Your task to perform on an android device: Search for seafood restaurants on Google Maps Image 0: 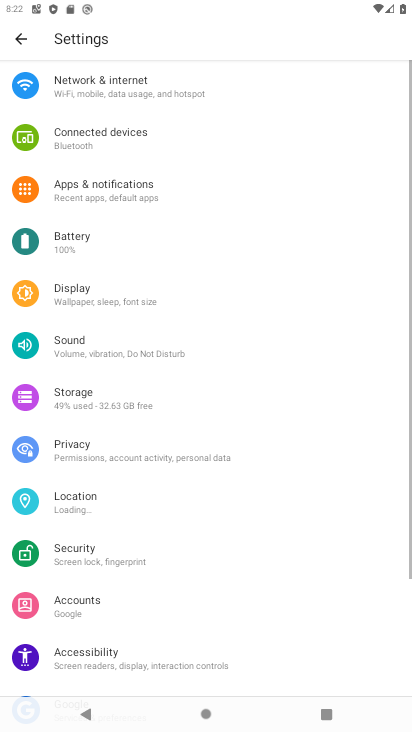
Step 0: press home button
Your task to perform on an android device: Search for seafood restaurants on Google Maps Image 1: 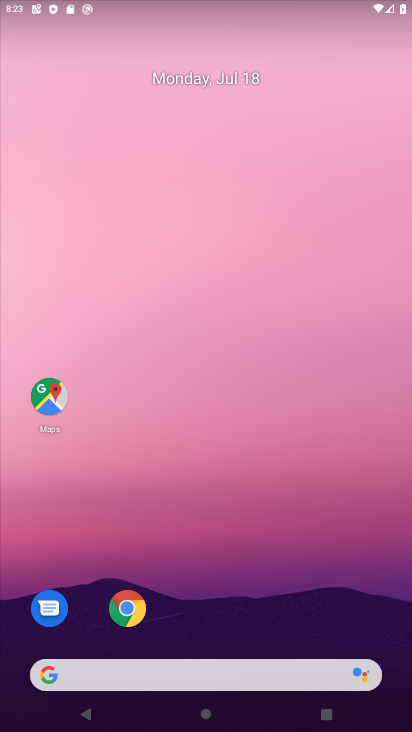
Step 1: drag from (235, 723) to (236, 223)
Your task to perform on an android device: Search for seafood restaurants on Google Maps Image 2: 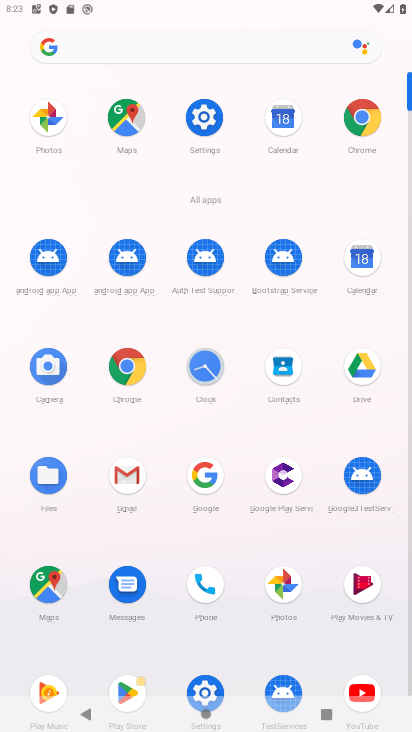
Step 2: click (45, 575)
Your task to perform on an android device: Search for seafood restaurants on Google Maps Image 3: 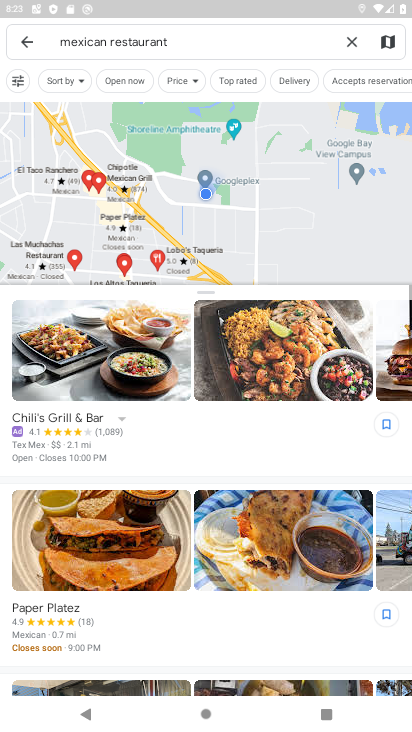
Step 3: click (349, 46)
Your task to perform on an android device: Search for seafood restaurants on Google Maps Image 4: 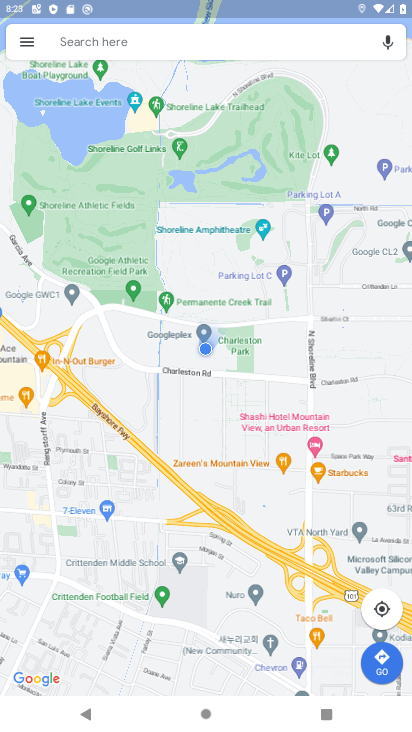
Step 4: click (124, 43)
Your task to perform on an android device: Search for seafood restaurants on Google Maps Image 5: 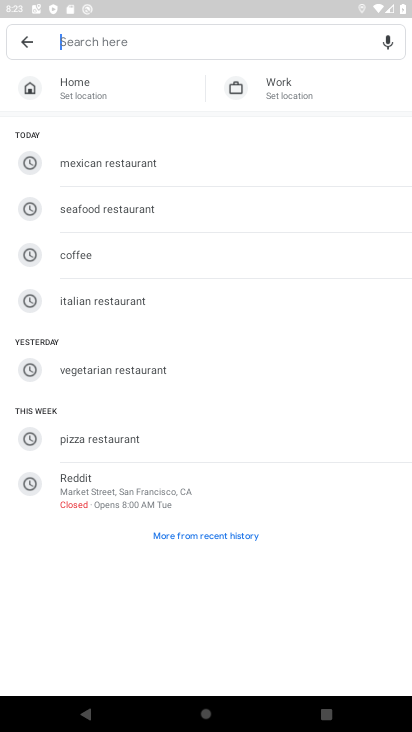
Step 5: type "seafood restaurants"
Your task to perform on an android device: Search for seafood restaurants on Google Maps Image 6: 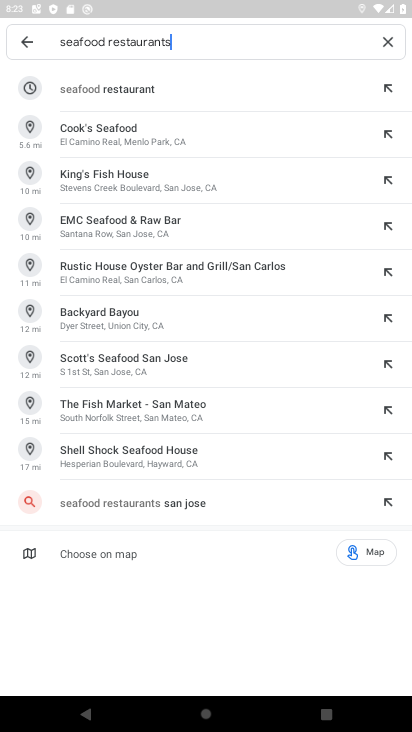
Step 6: click (129, 88)
Your task to perform on an android device: Search for seafood restaurants on Google Maps Image 7: 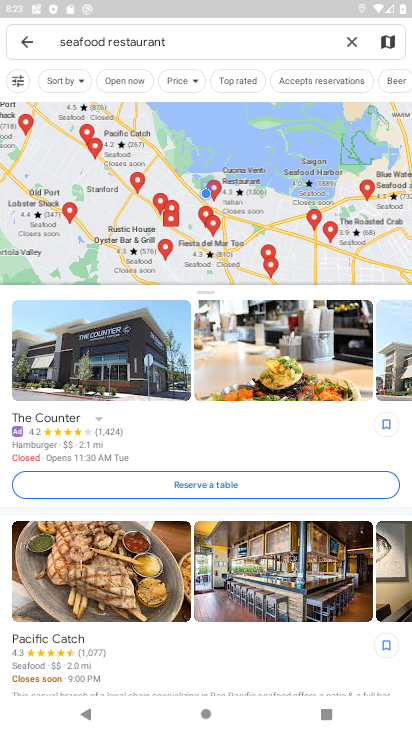
Step 7: task complete